Your task to perform on an android device: Search for pizza restaurants on Maps Image 0: 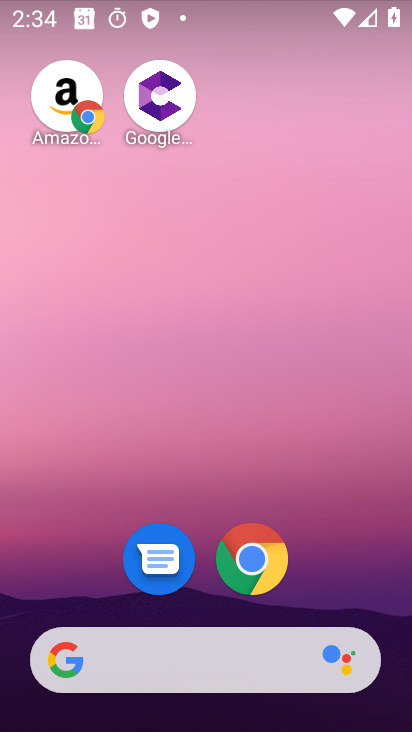
Step 0: drag from (350, 543) to (146, 5)
Your task to perform on an android device: Search for pizza restaurants on Maps Image 1: 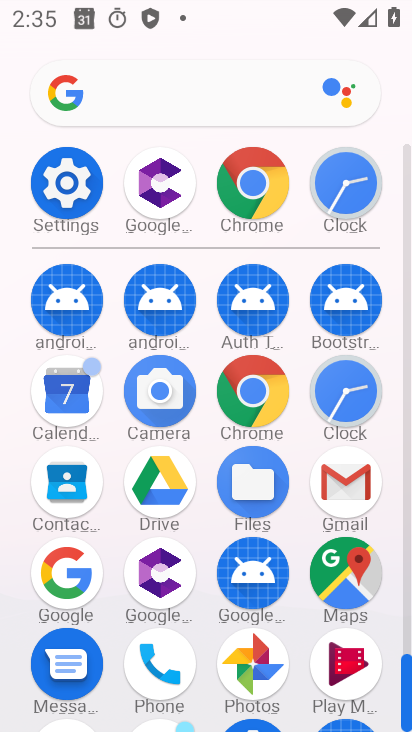
Step 1: drag from (7, 550) to (6, 203)
Your task to perform on an android device: Search for pizza restaurants on Maps Image 2: 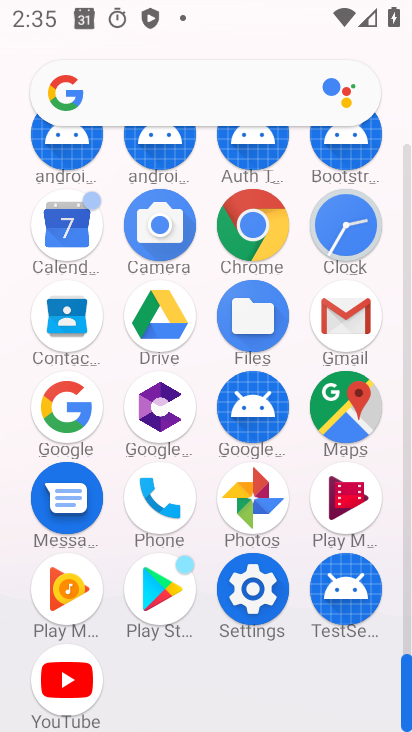
Step 2: click (344, 396)
Your task to perform on an android device: Search for pizza restaurants on Maps Image 3: 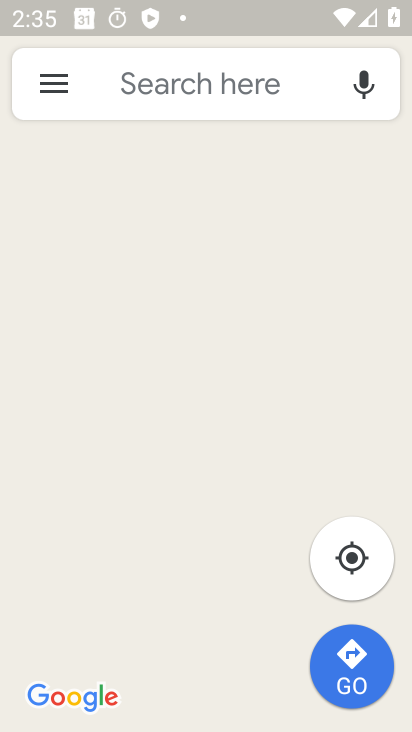
Step 3: click (280, 82)
Your task to perform on an android device: Search for pizza restaurants on Maps Image 4: 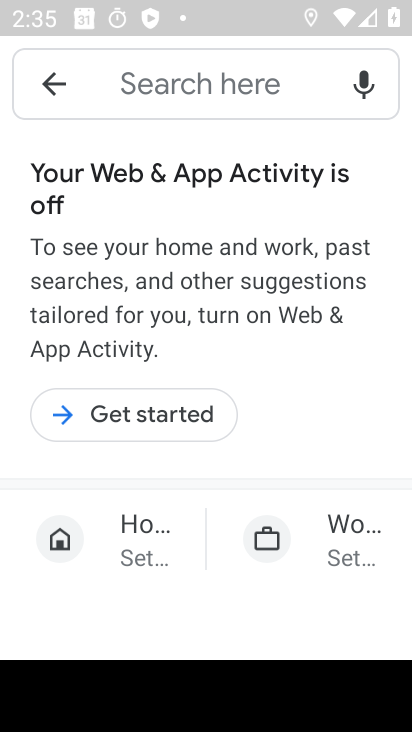
Step 4: click (168, 71)
Your task to perform on an android device: Search for pizza restaurants on Maps Image 5: 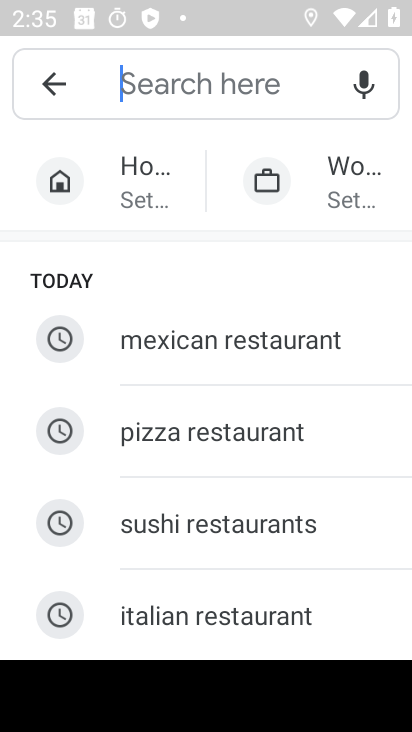
Step 5: type " pizza restaurants "
Your task to perform on an android device: Search for pizza restaurants on Maps Image 6: 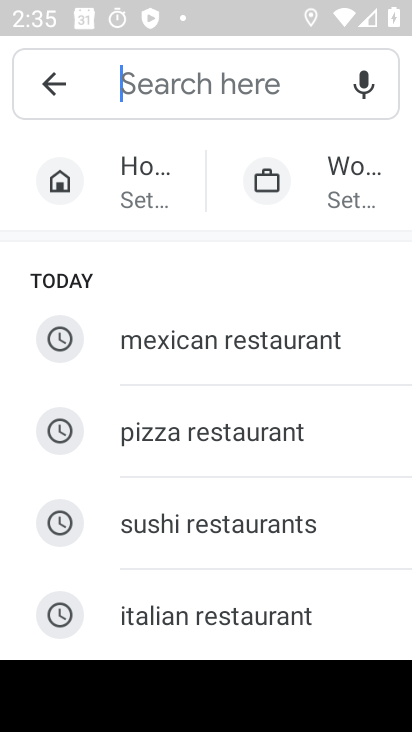
Step 6: click (278, 438)
Your task to perform on an android device: Search for pizza restaurants on Maps Image 7: 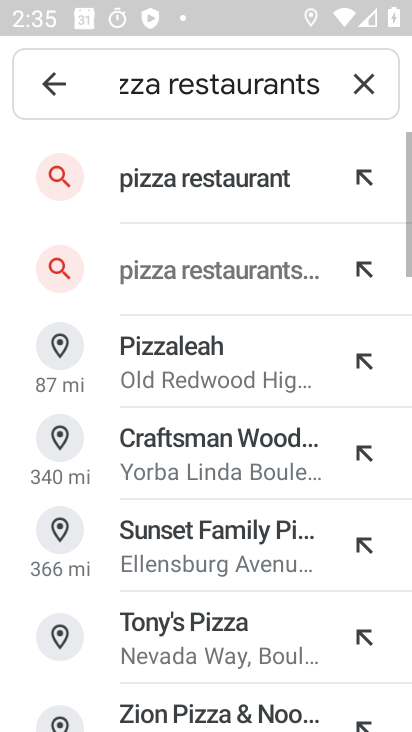
Step 7: click (230, 194)
Your task to perform on an android device: Search for pizza restaurants on Maps Image 8: 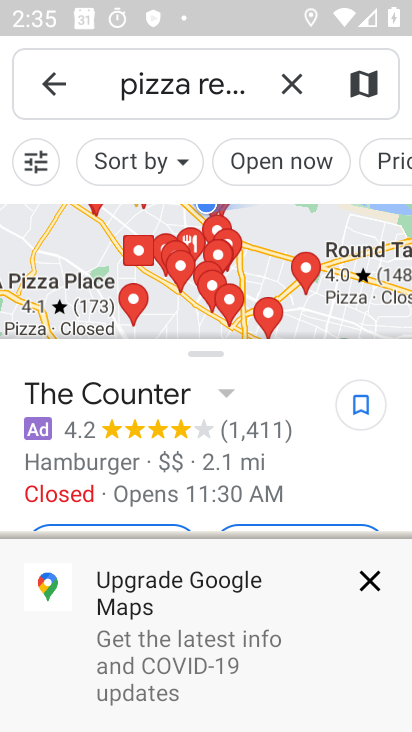
Step 8: task complete